Your task to perform on an android device: set default search engine in the chrome app Image 0: 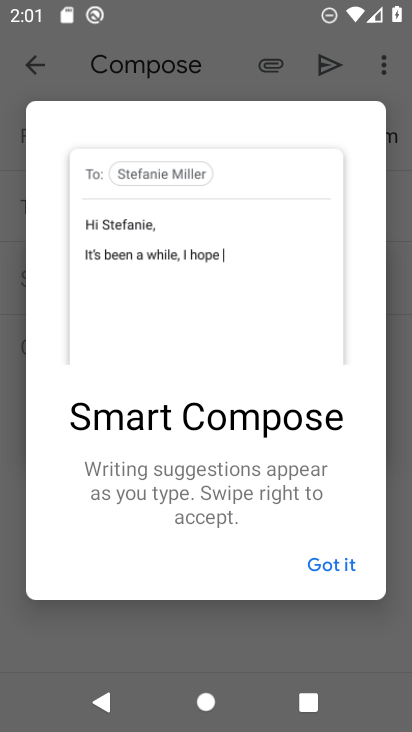
Step 0: press home button
Your task to perform on an android device: set default search engine in the chrome app Image 1: 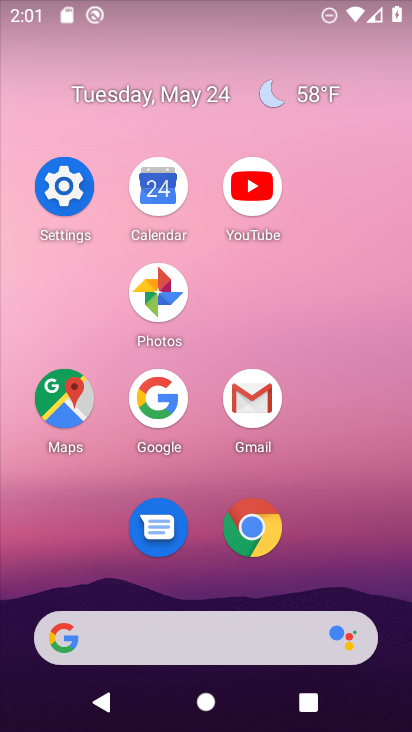
Step 1: click (263, 526)
Your task to perform on an android device: set default search engine in the chrome app Image 2: 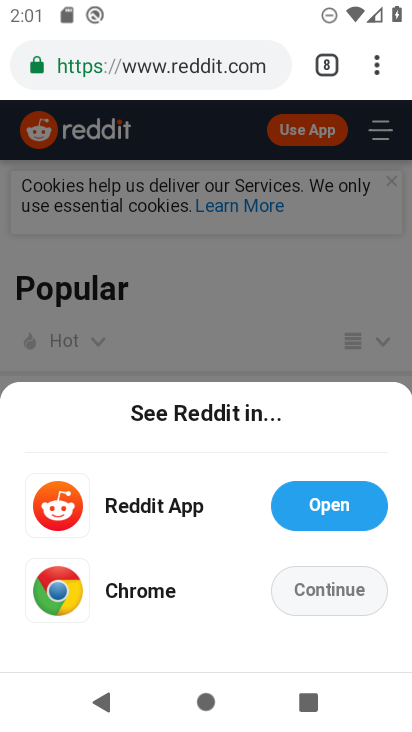
Step 2: click (387, 62)
Your task to perform on an android device: set default search engine in the chrome app Image 3: 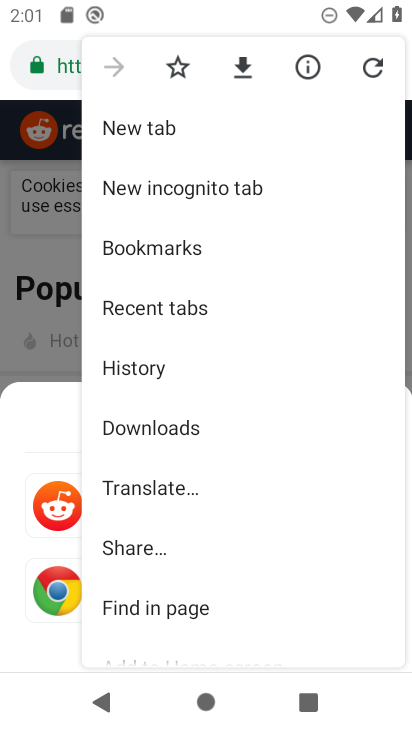
Step 3: drag from (278, 509) to (240, 156)
Your task to perform on an android device: set default search engine in the chrome app Image 4: 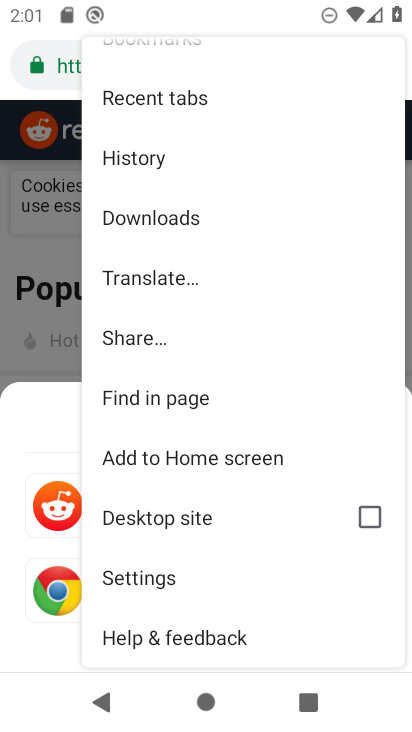
Step 4: click (200, 579)
Your task to perform on an android device: set default search engine in the chrome app Image 5: 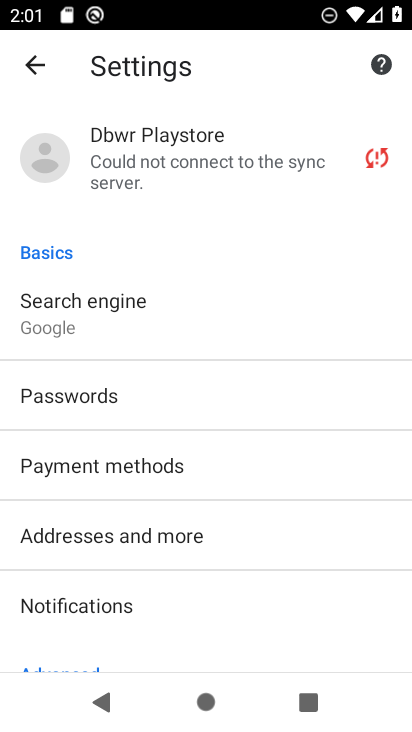
Step 5: click (167, 327)
Your task to perform on an android device: set default search engine in the chrome app Image 6: 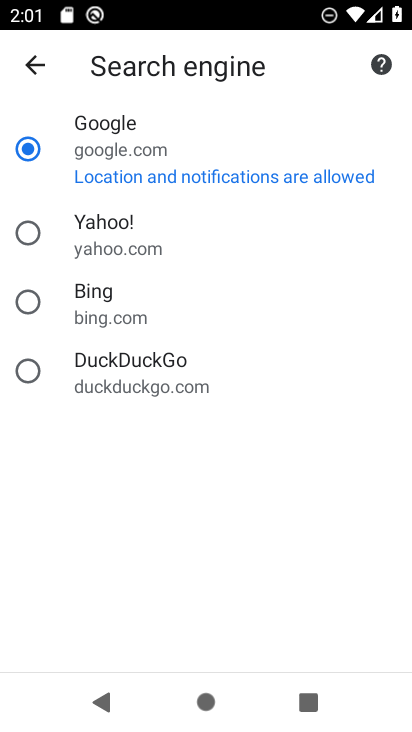
Step 6: task complete